Your task to perform on an android device: toggle wifi Image 0: 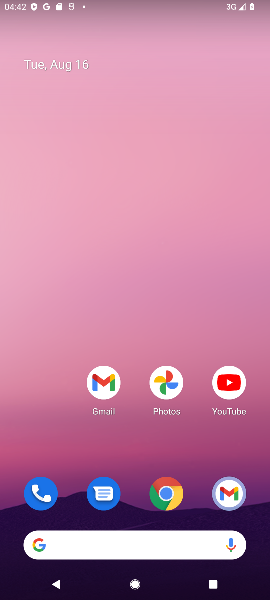
Step 0: press home button
Your task to perform on an android device: toggle wifi Image 1: 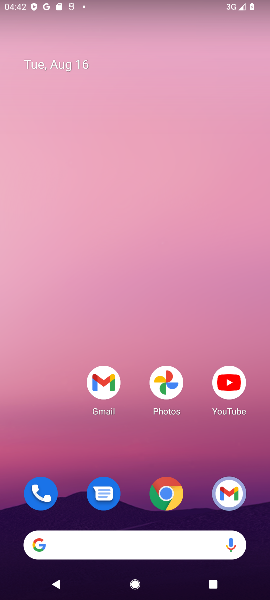
Step 1: drag from (66, 464) to (47, 72)
Your task to perform on an android device: toggle wifi Image 2: 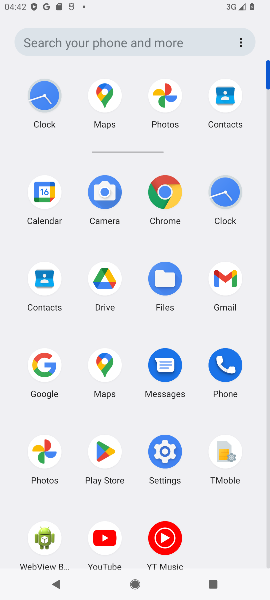
Step 2: click (163, 454)
Your task to perform on an android device: toggle wifi Image 3: 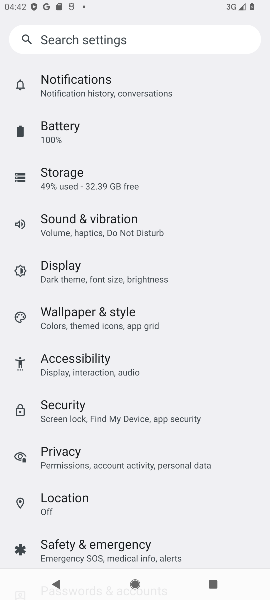
Step 3: drag from (230, 282) to (231, 393)
Your task to perform on an android device: toggle wifi Image 4: 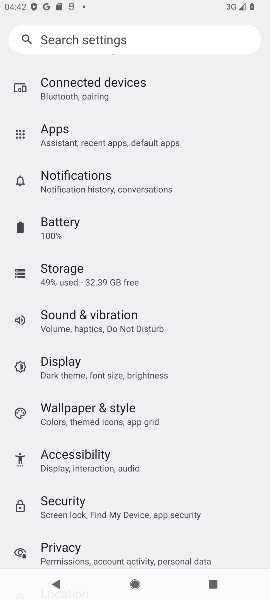
Step 4: drag from (224, 194) to (222, 331)
Your task to perform on an android device: toggle wifi Image 5: 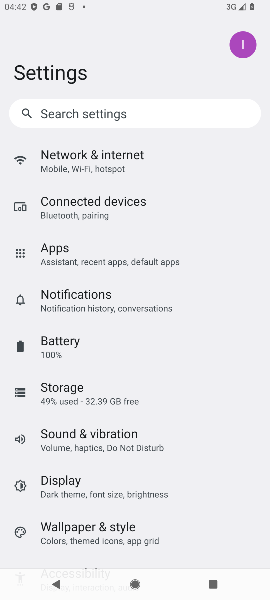
Step 5: drag from (216, 200) to (219, 371)
Your task to perform on an android device: toggle wifi Image 6: 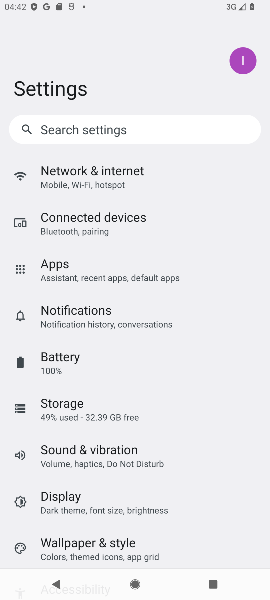
Step 6: click (139, 179)
Your task to perform on an android device: toggle wifi Image 7: 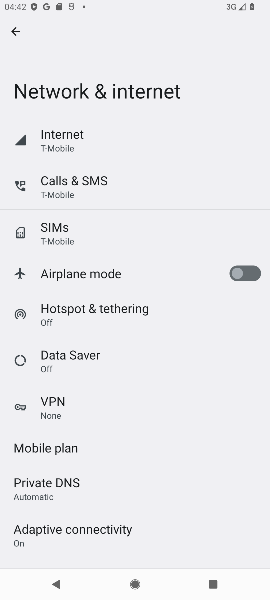
Step 7: click (92, 131)
Your task to perform on an android device: toggle wifi Image 8: 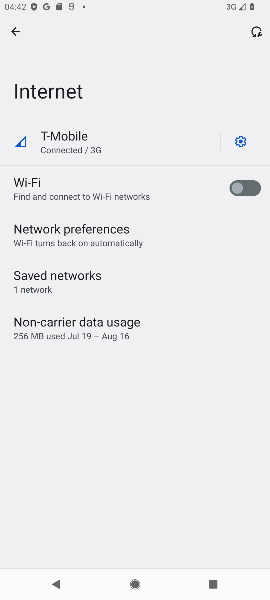
Step 8: click (231, 188)
Your task to perform on an android device: toggle wifi Image 9: 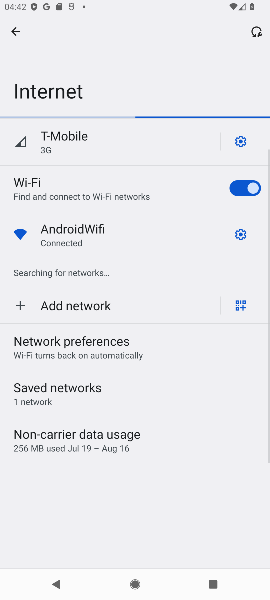
Step 9: task complete